Your task to perform on an android device: View the shopping cart on costco.com. Search for "apple airpods" on costco.com, select the first entry, add it to the cart, then select checkout. Image 0: 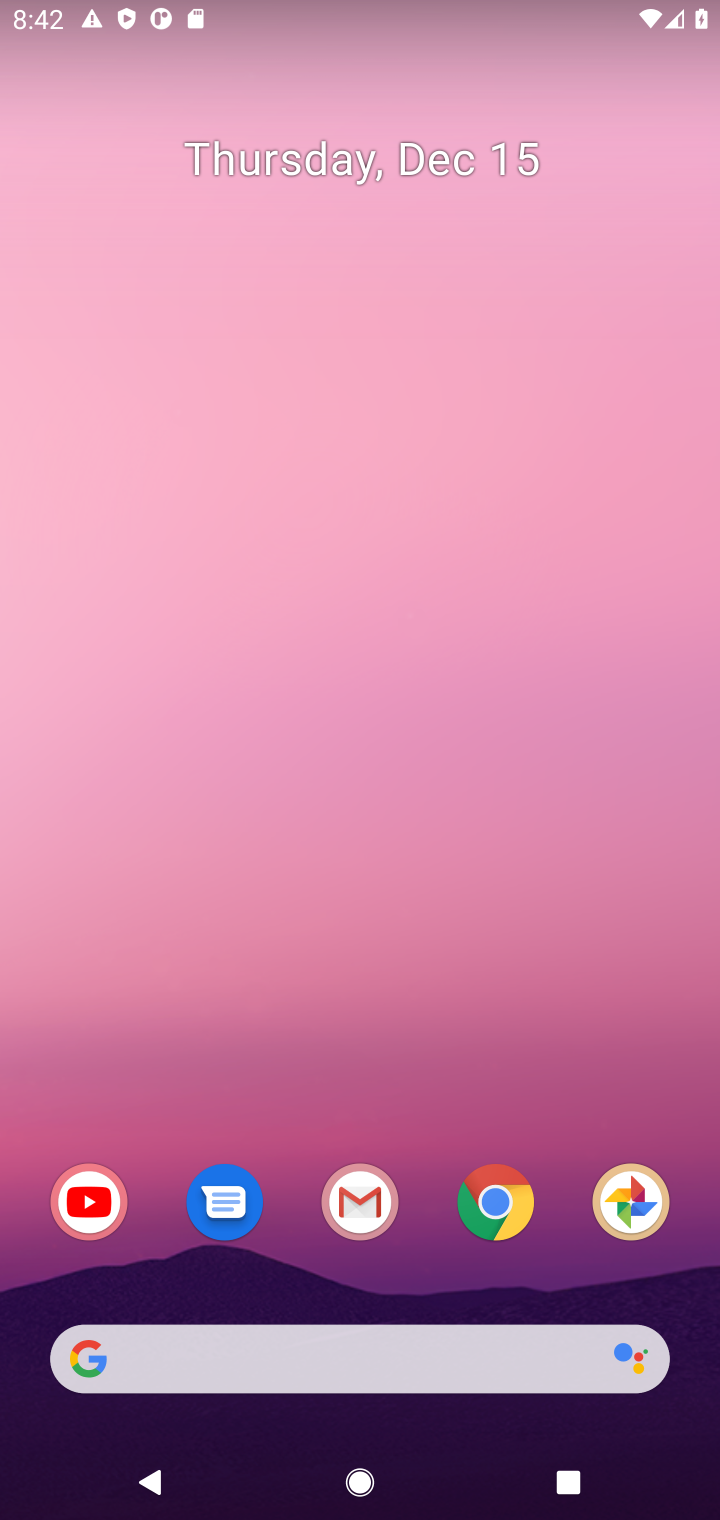
Step 0: click (477, 1209)
Your task to perform on an android device: View the shopping cart on costco.com. Search for "apple airpods" on costco.com, select the first entry, add it to the cart, then select checkout. Image 1: 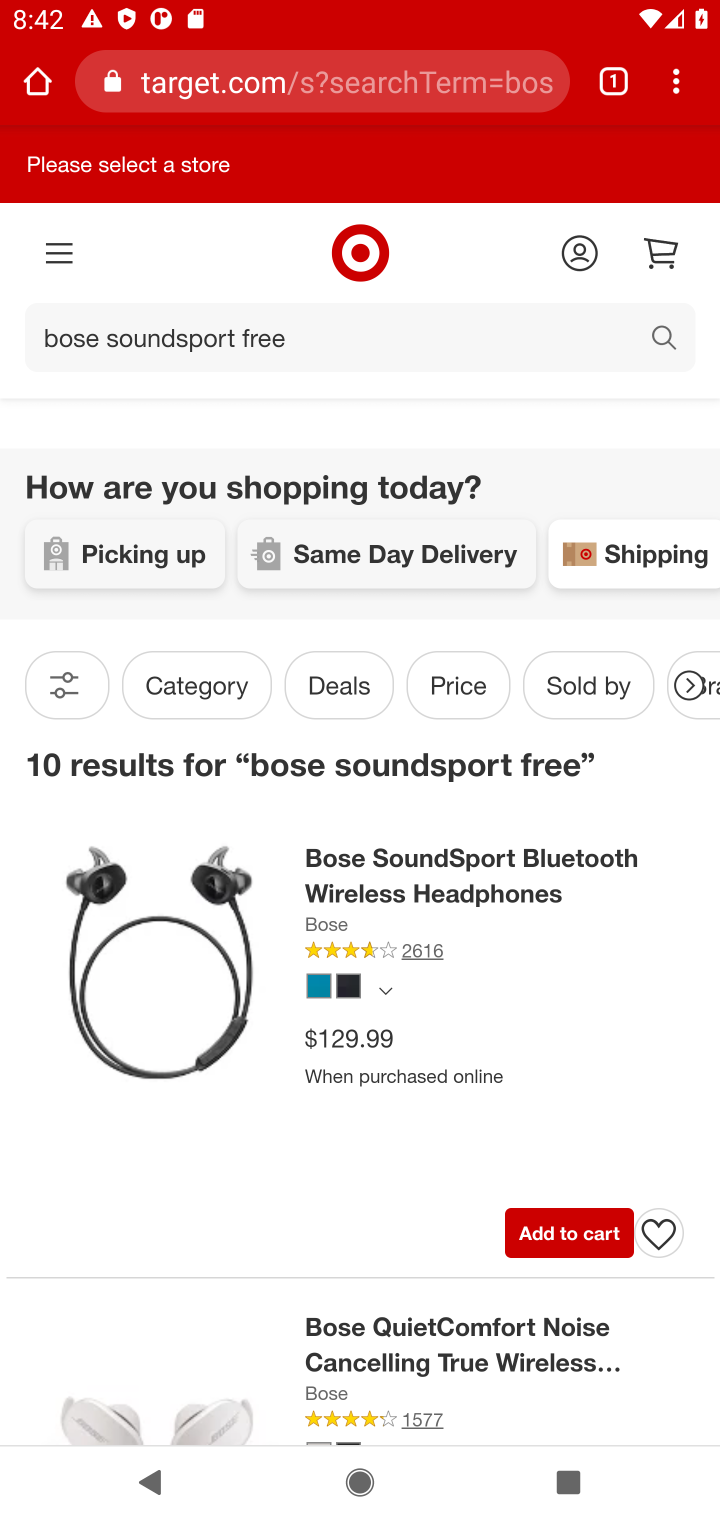
Step 1: click (273, 87)
Your task to perform on an android device: View the shopping cart on costco.com. Search for "apple airpods" on costco.com, select the first entry, add it to the cart, then select checkout. Image 2: 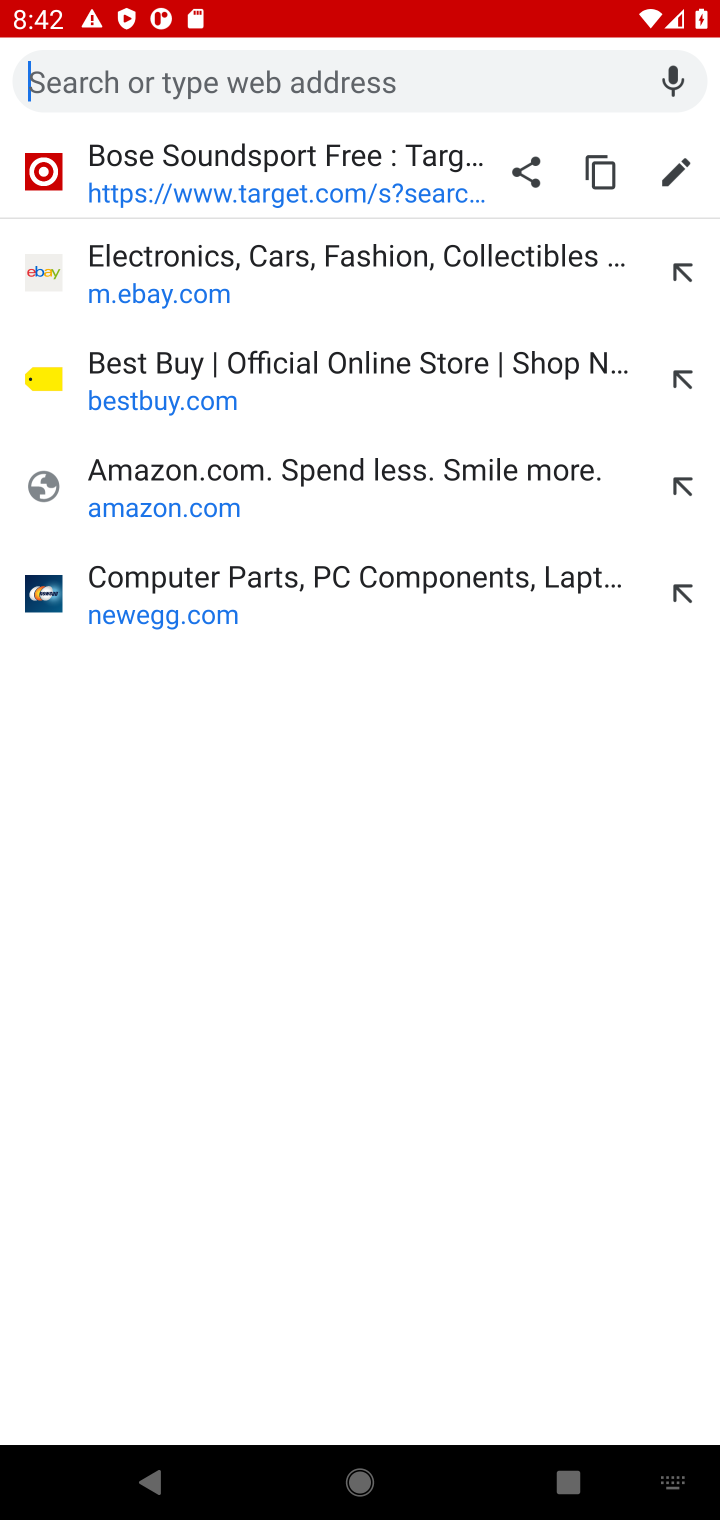
Step 2: type "costco.com"
Your task to perform on an android device: View the shopping cart on costco.com. Search for "apple airpods" on costco.com, select the first entry, add it to the cart, then select checkout. Image 3: 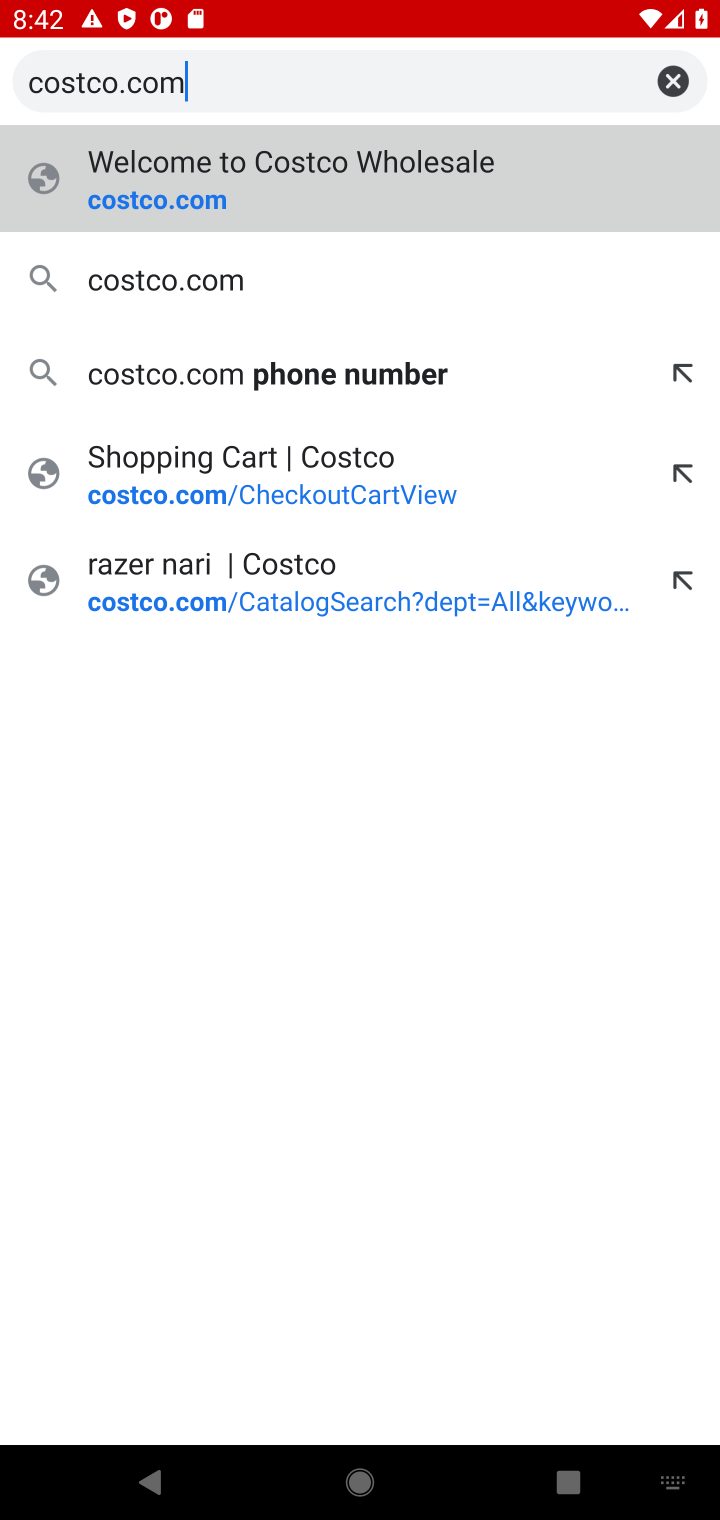
Step 3: click (143, 208)
Your task to perform on an android device: View the shopping cart on costco.com. Search for "apple airpods" on costco.com, select the first entry, add it to the cart, then select checkout. Image 4: 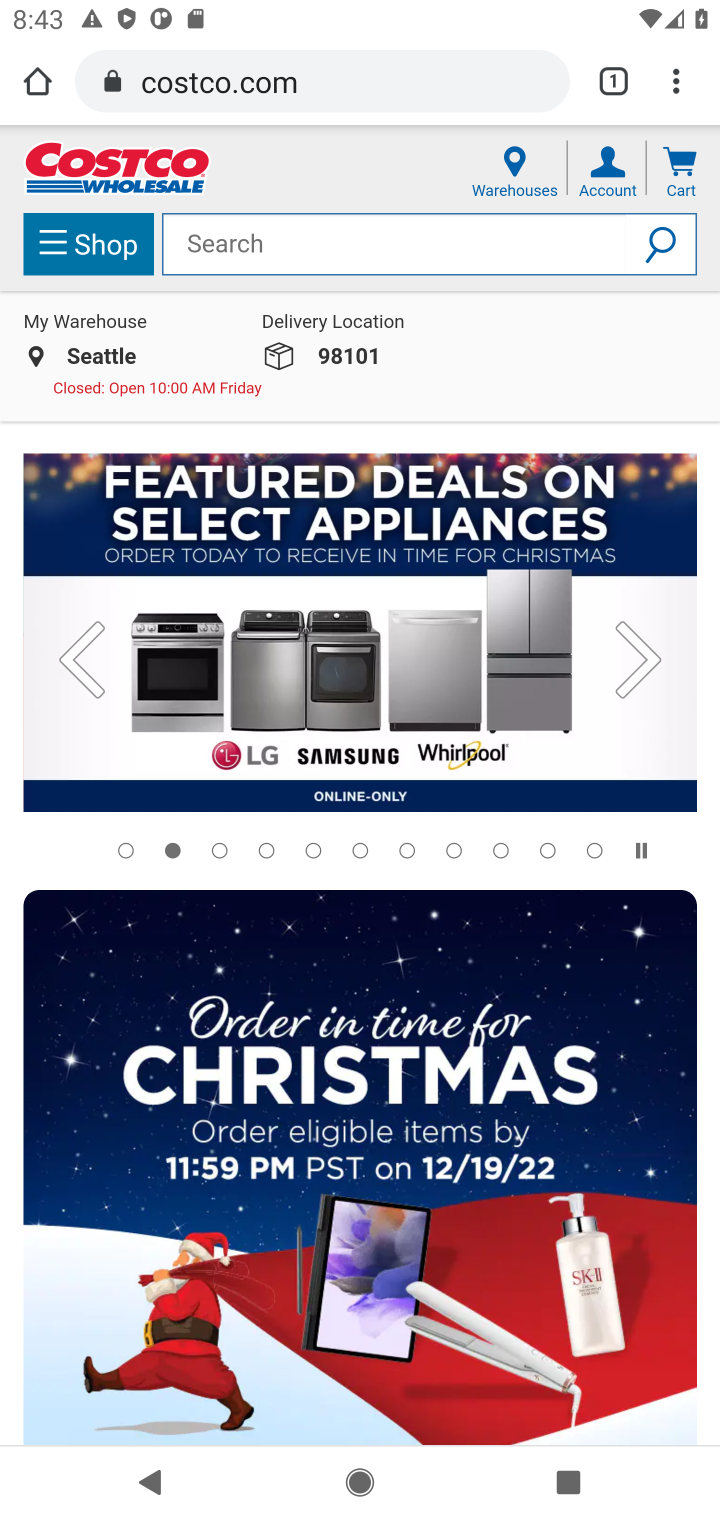
Step 4: click (670, 182)
Your task to perform on an android device: View the shopping cart on costco.com. Search for "apple airpods" on costco.com, select the first entry, add it to the cart, then select checkout. Image 5: 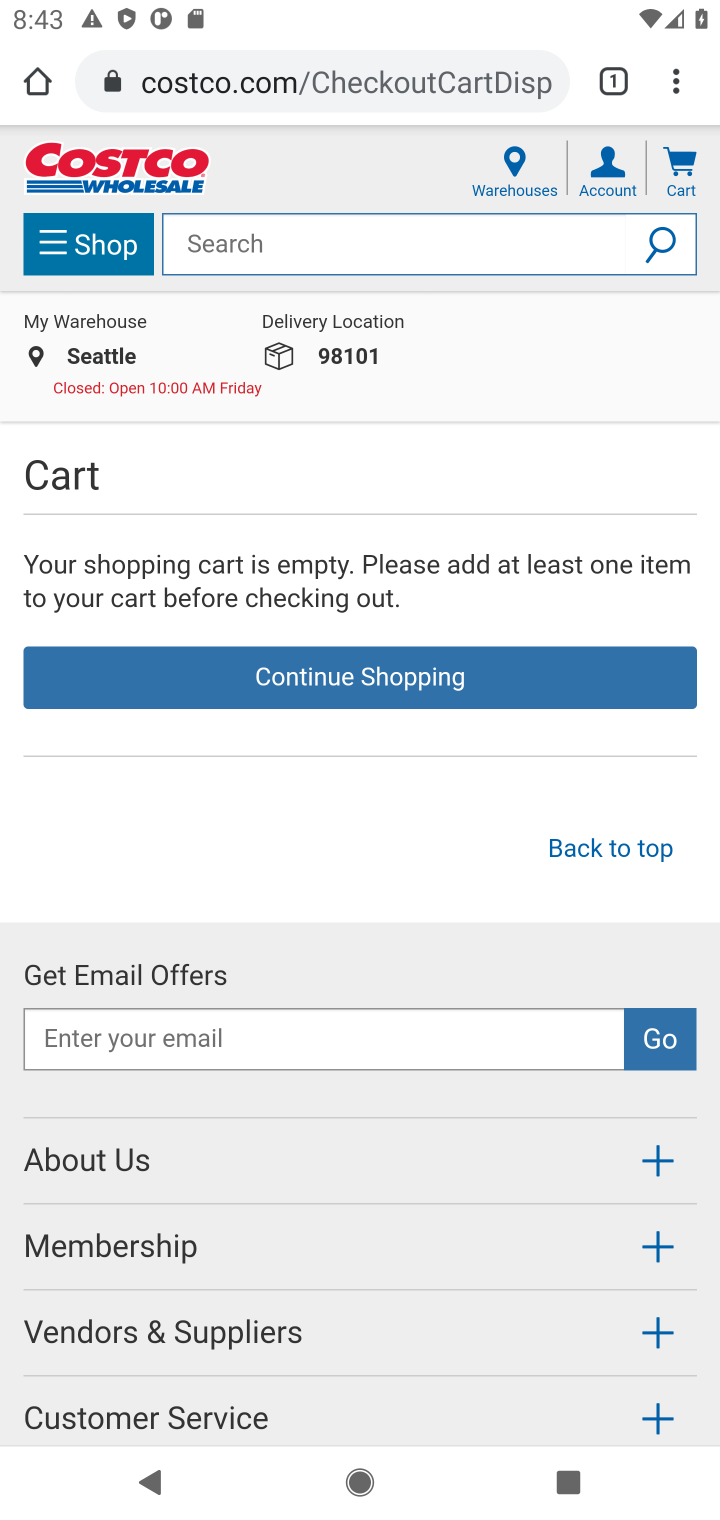
Step 5: click (260, 251)
Your task to perform on an android device: View the shopping cart on costco.com. Search for "apple airpods" on costco.com, select the first entry, add it to the cart, then select checkout. Image 6: 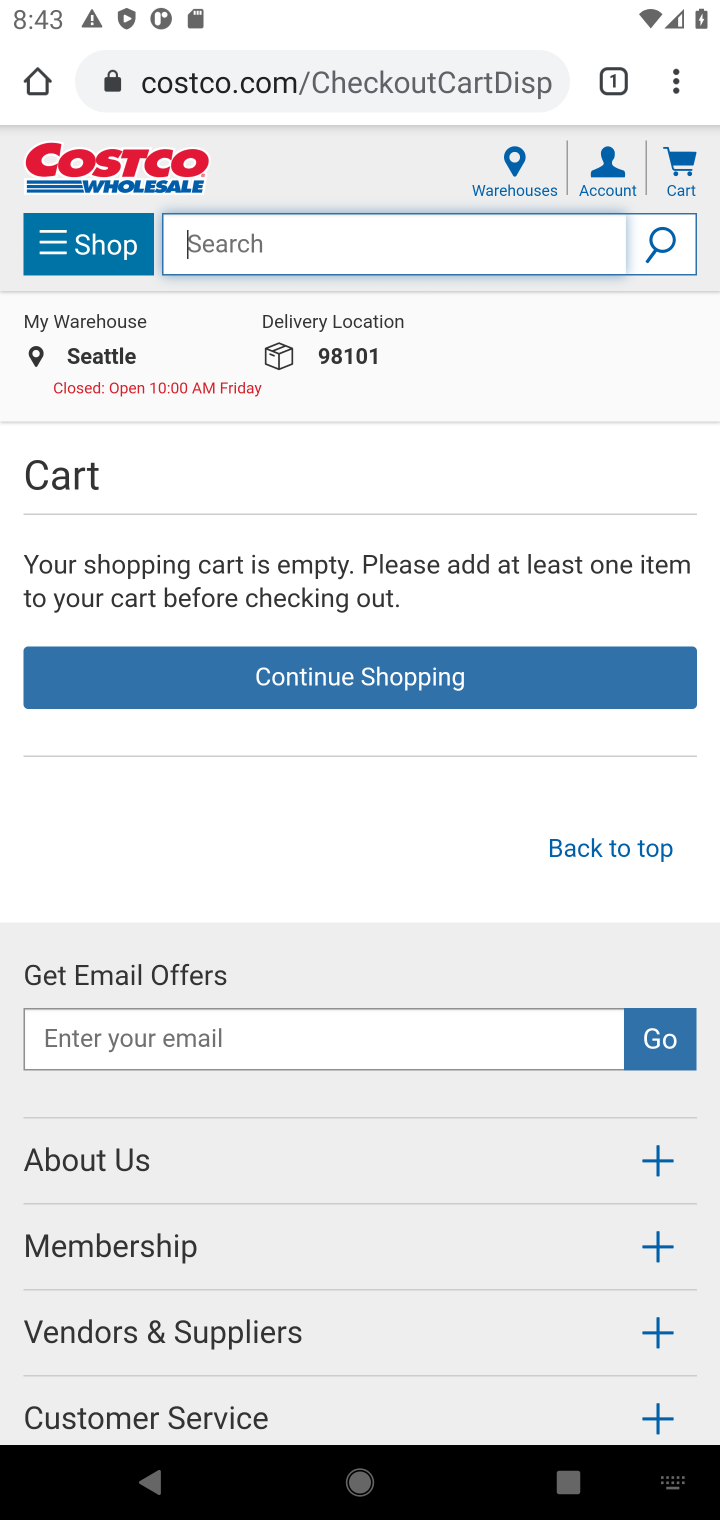
Step 6: type "apple airpods"
Your task to perform on an android device: View the shopping cart on costco.com. Search for "apple airpods" on costco.com, select the first entry, add it to the cart, then select checkout. Image 7: 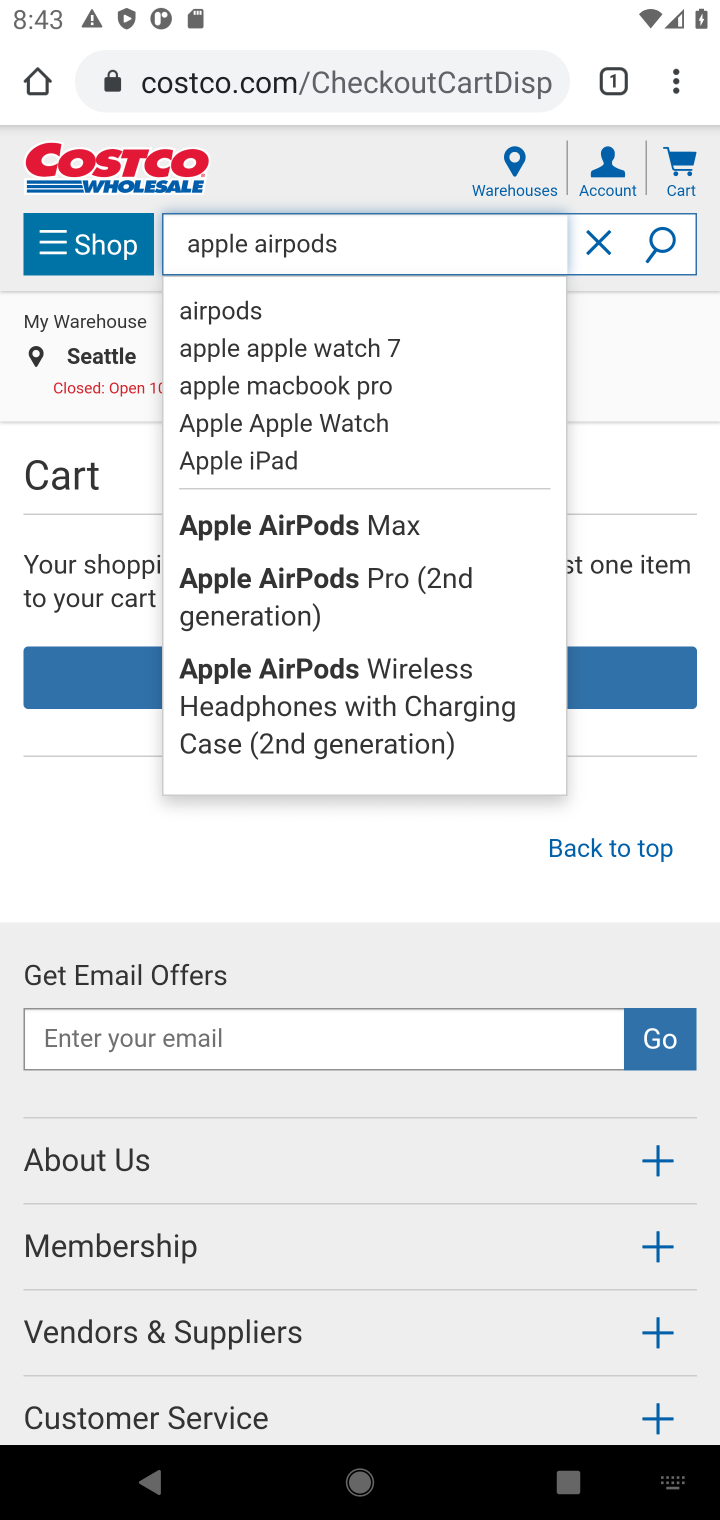
Step 7: click (646, 248)
Your task to perform on an android device: View the shopping cart on costco.com. Search for "apple airpods" on costco.com, select the first entry, add it to the cart, then select checkout. Image 8: 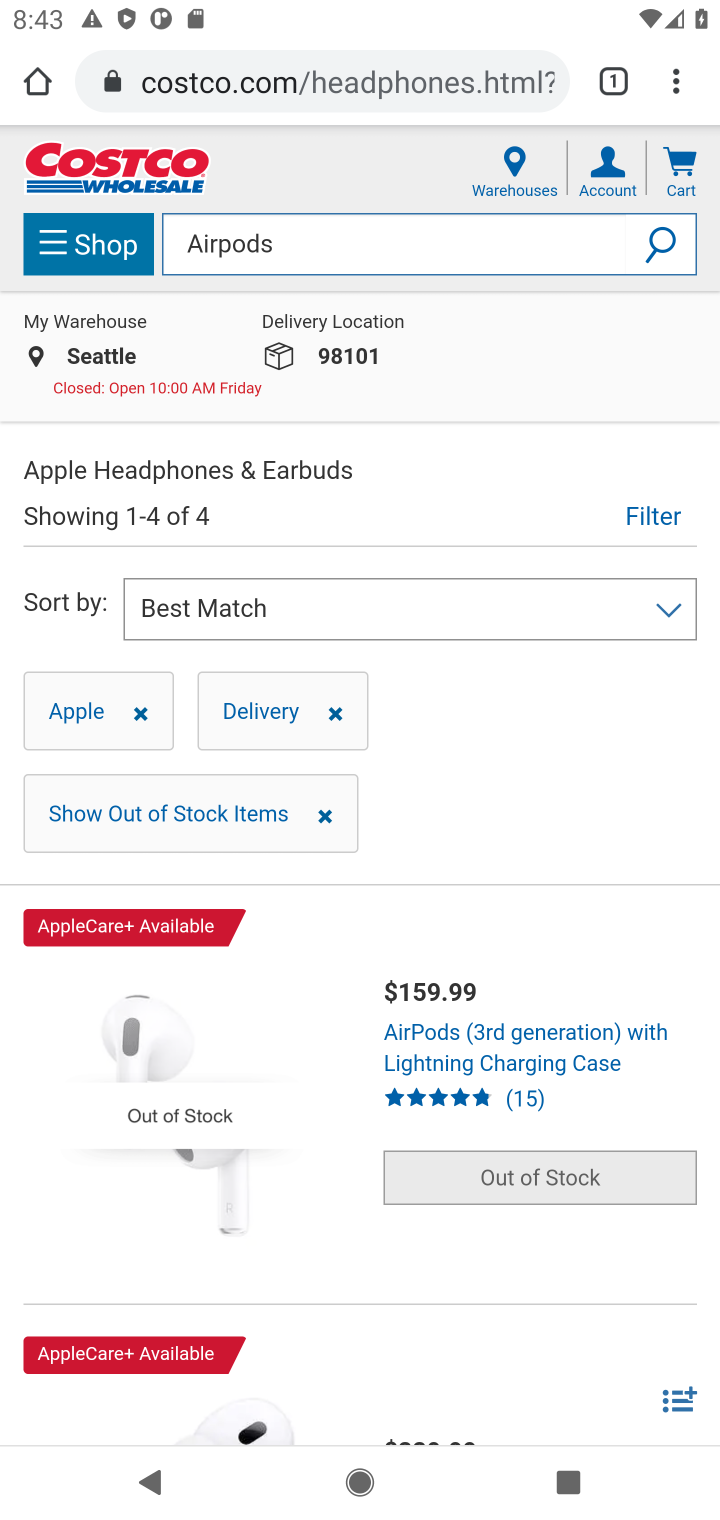
Step 8: task complete